Your task to perform on an android device: open chrome privacy settings Image 0: 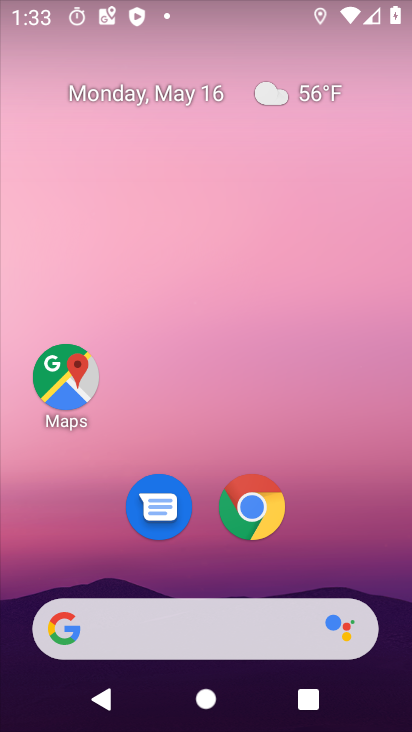
Step 0: click (248, 506)
Your task to perform on an android device: open chrome privacy settings Image 1: 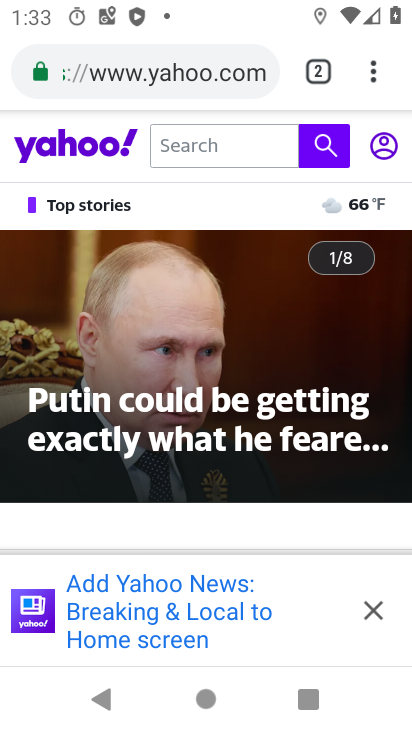
Step 1: click (366, 62)
Your task to perform on an android device: open chrome privacy settings Image 2: 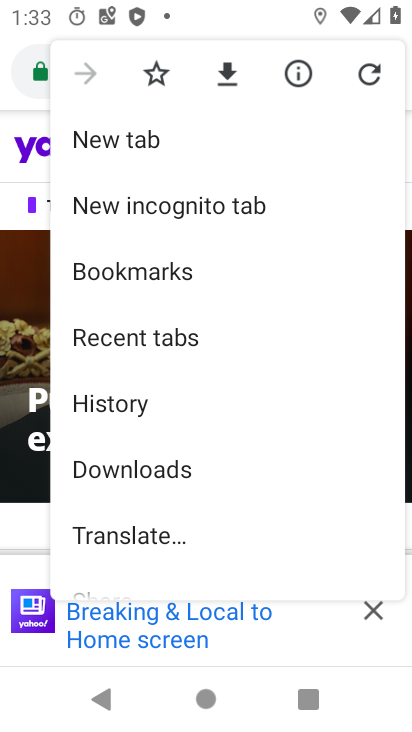
Step 2: drag from (180, 525) to (165, 204)
Your task to perform on an android device: open chrome privacy settings Image 3: 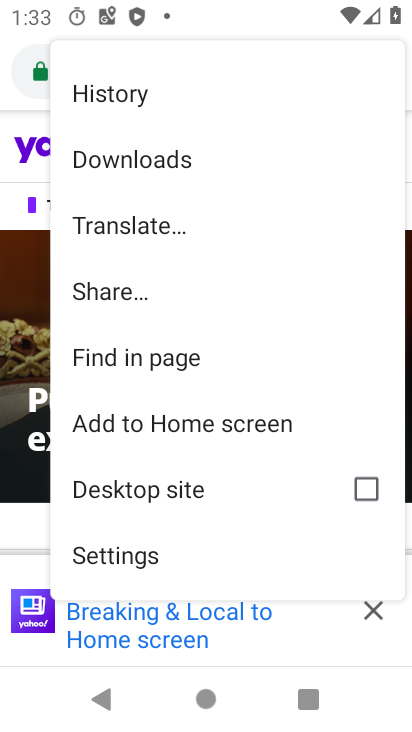
Step 3: click (143, 562)
Your task to perform on an android device: open chrome privacy settings Image 4: 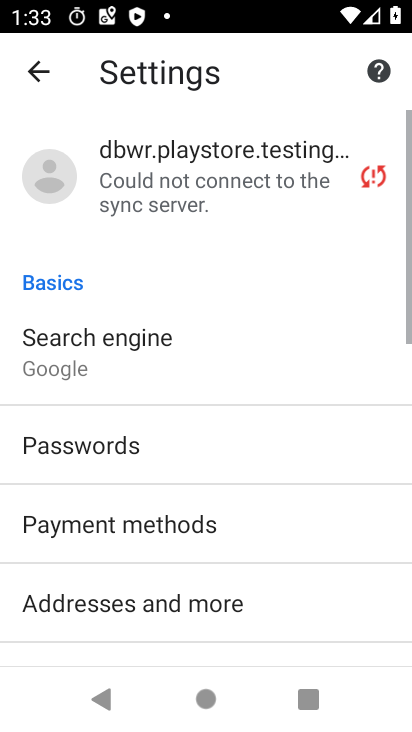
Step 4: drag from (98, 384) to (95, 83)
Your task to perform on an android device: open chrome privacy settings Image 5: 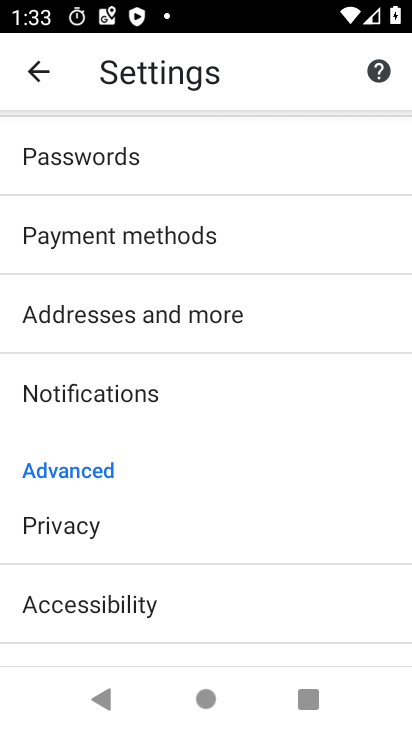
Step 5: click (85, 524)
Your task to perform on an android device: open chrome privacy settings Image 6: 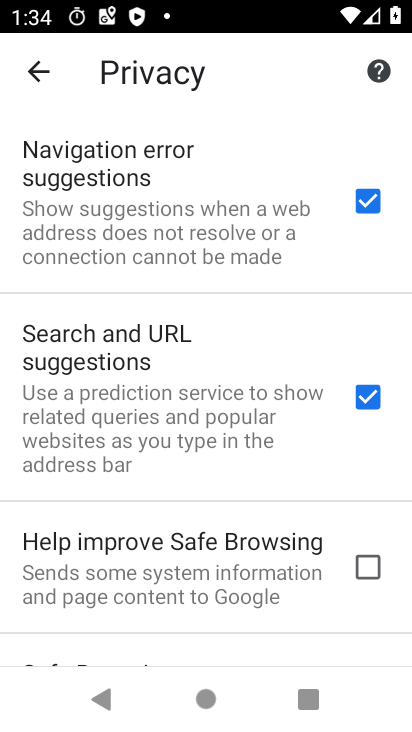
Step 6: task complete